Your task to perform on an android device: change text size in settings app Image 0: 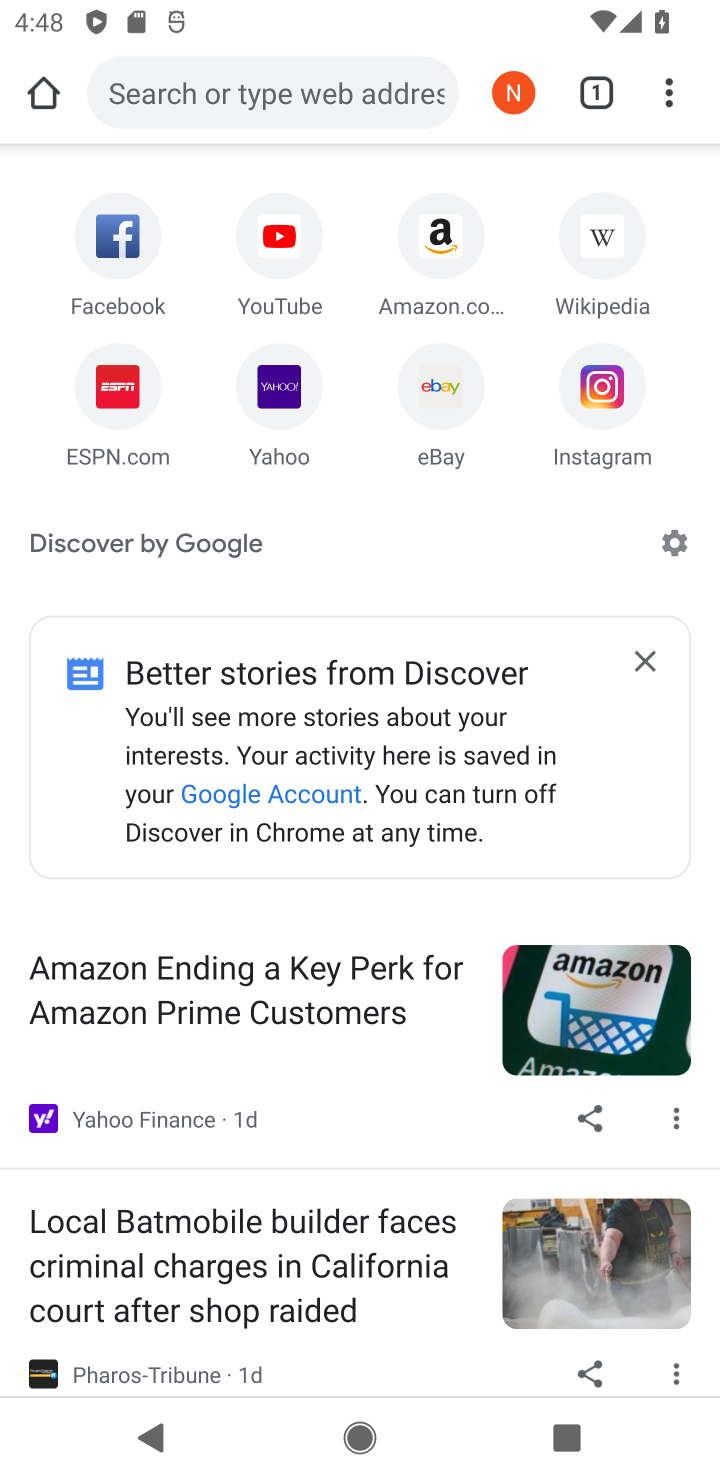
Step 0: press home button
Your task to perform on an android device: change text size in settings app Image 1: 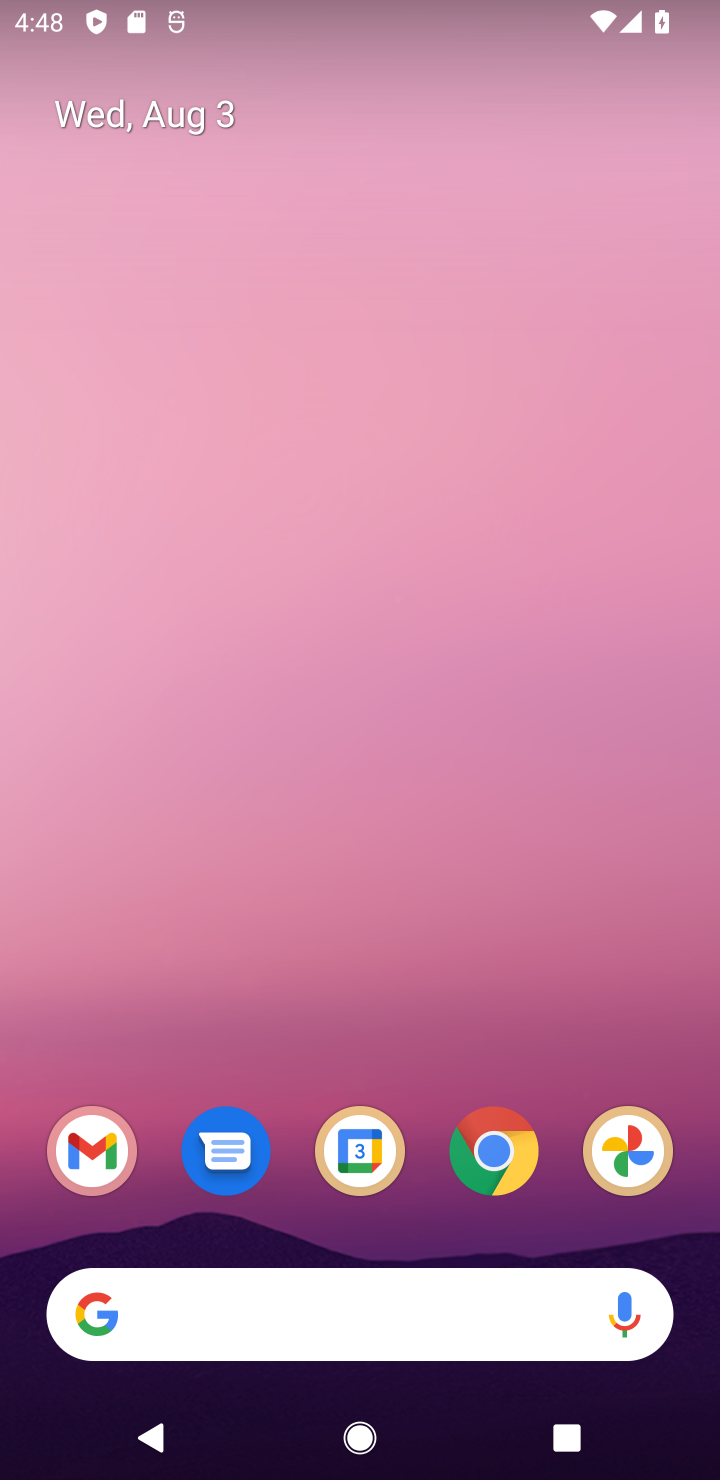
Step 1: drag from (470, 1088) to (420, 364)
Your task to perform on an android device: change text size in settings app Image 2: 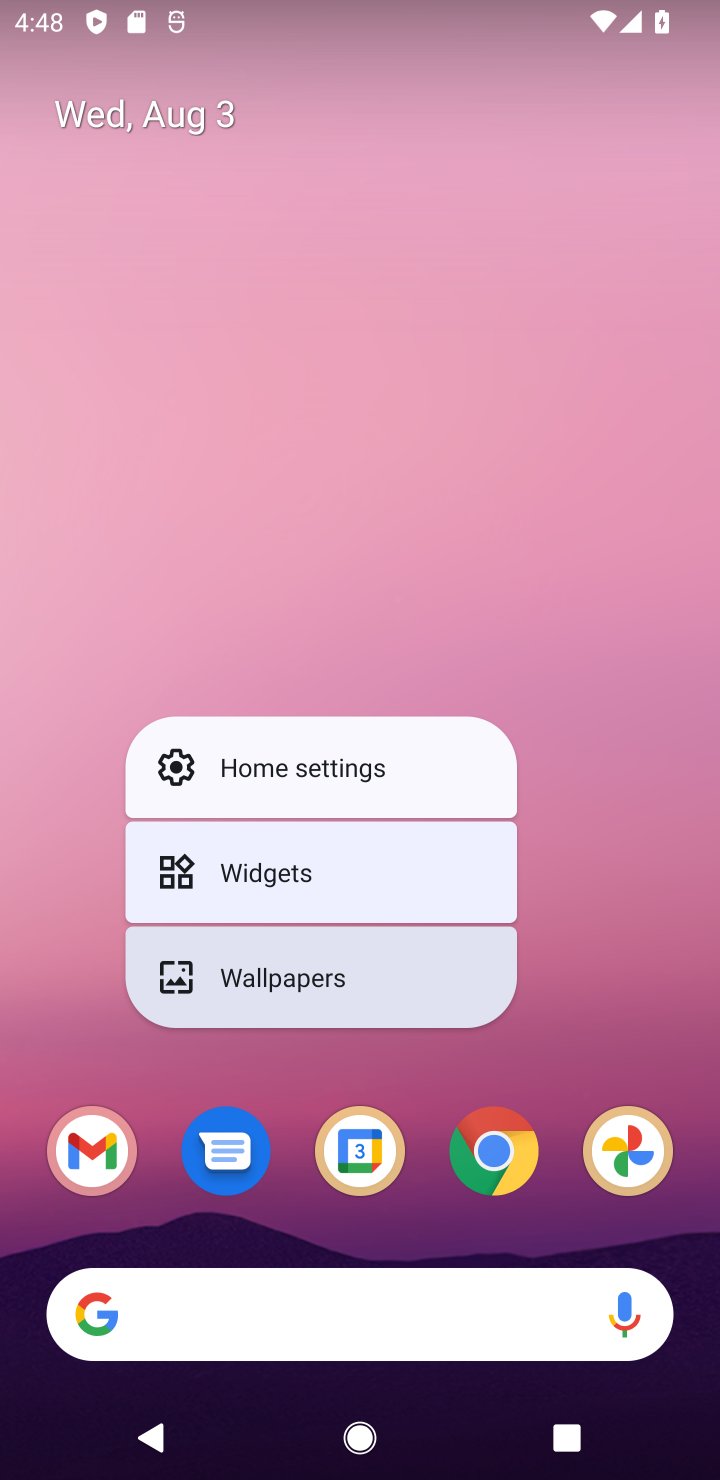
Step 2: click (633, 945)
Your task to perform on an android device: change text size in settings app Image 3: 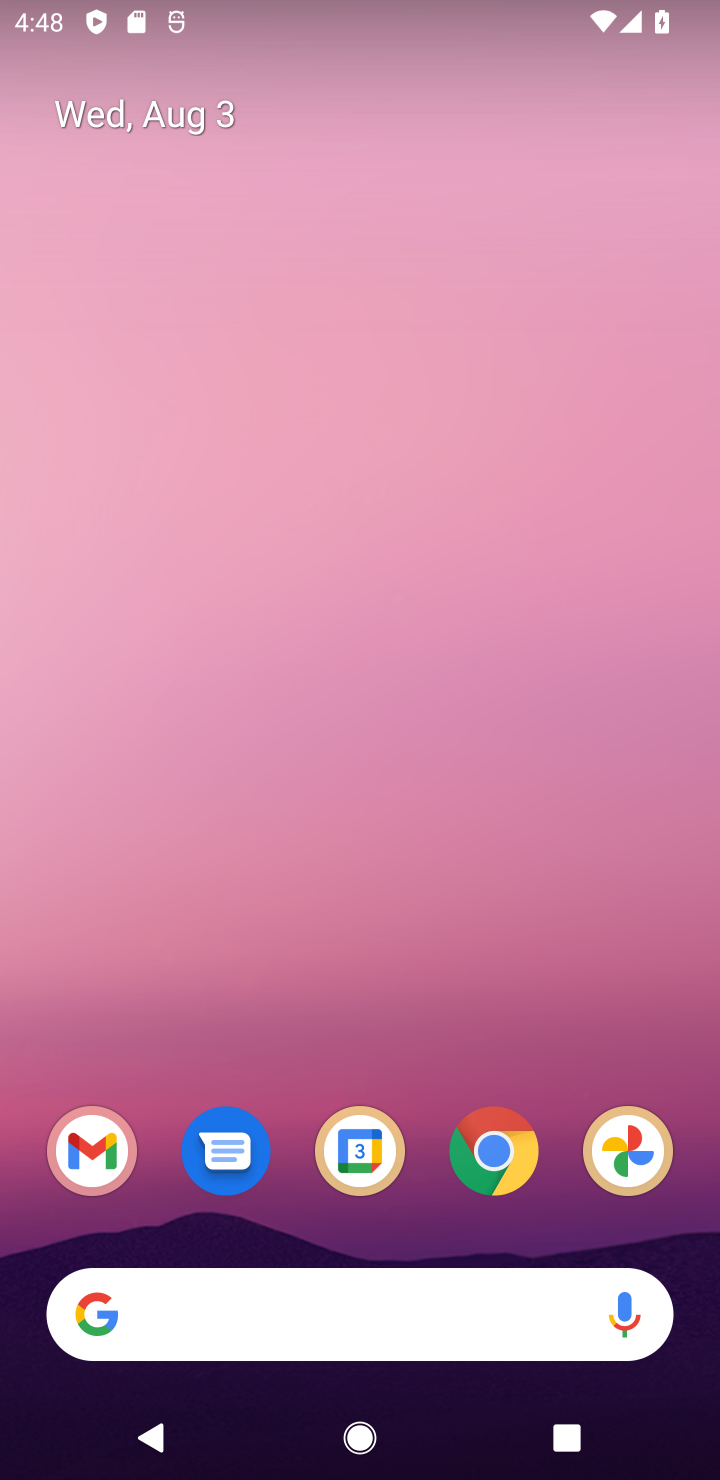
Step 3: click (130, 1090)
Your task to perform on an android device: change text size in settings app Image 4: 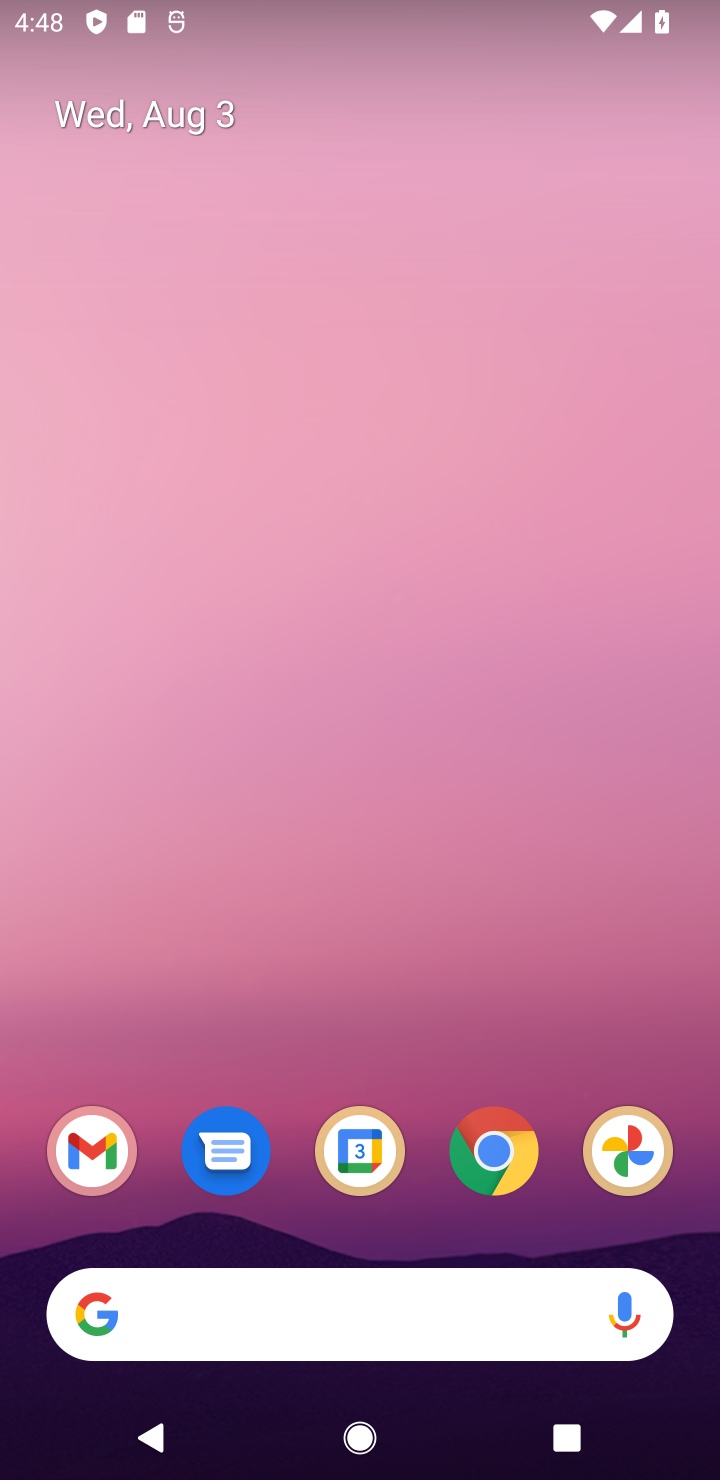
Step 4: drag from (192, 1081) to (230, 71)
Your task to perform on an android device: change text size in settings app Image 5: 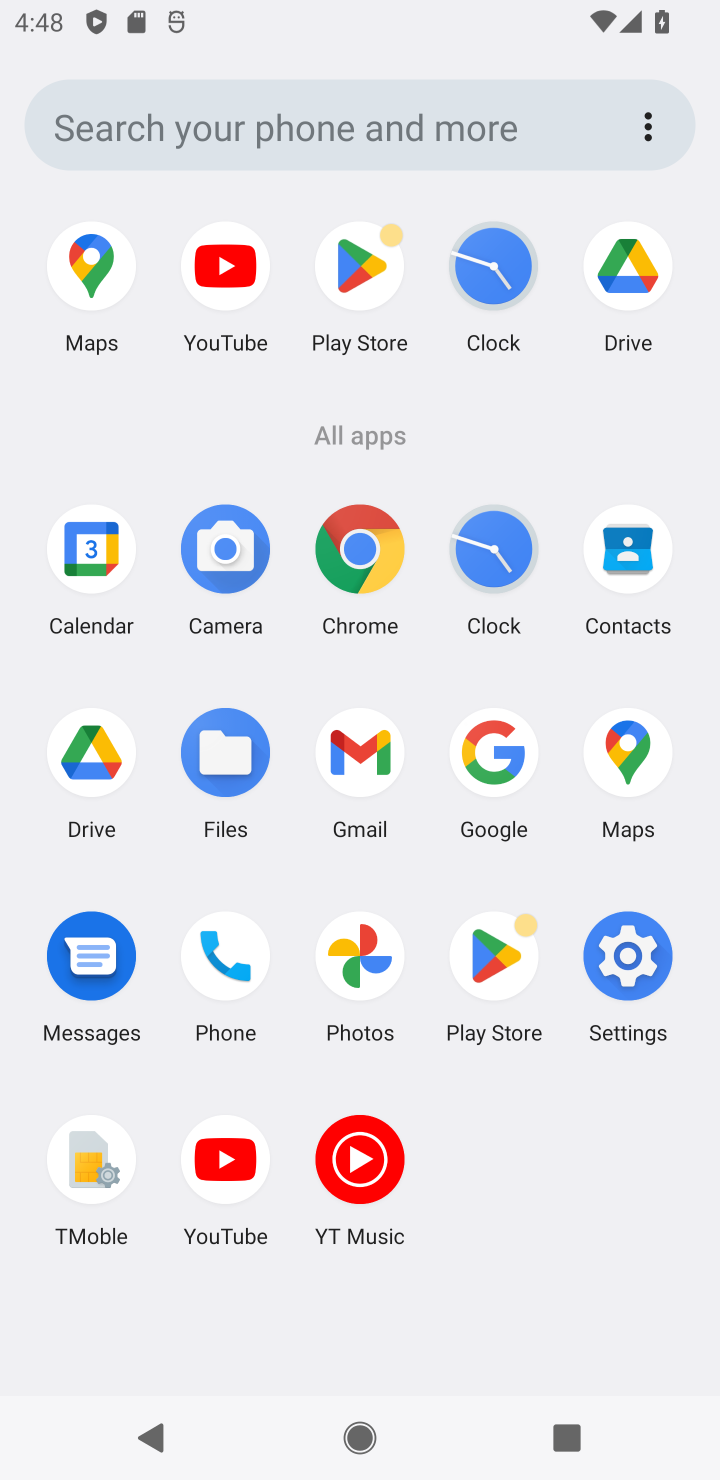
Step 5: click (633, 989)
Your task to perform on an android device: change text size in settings app Image 6: 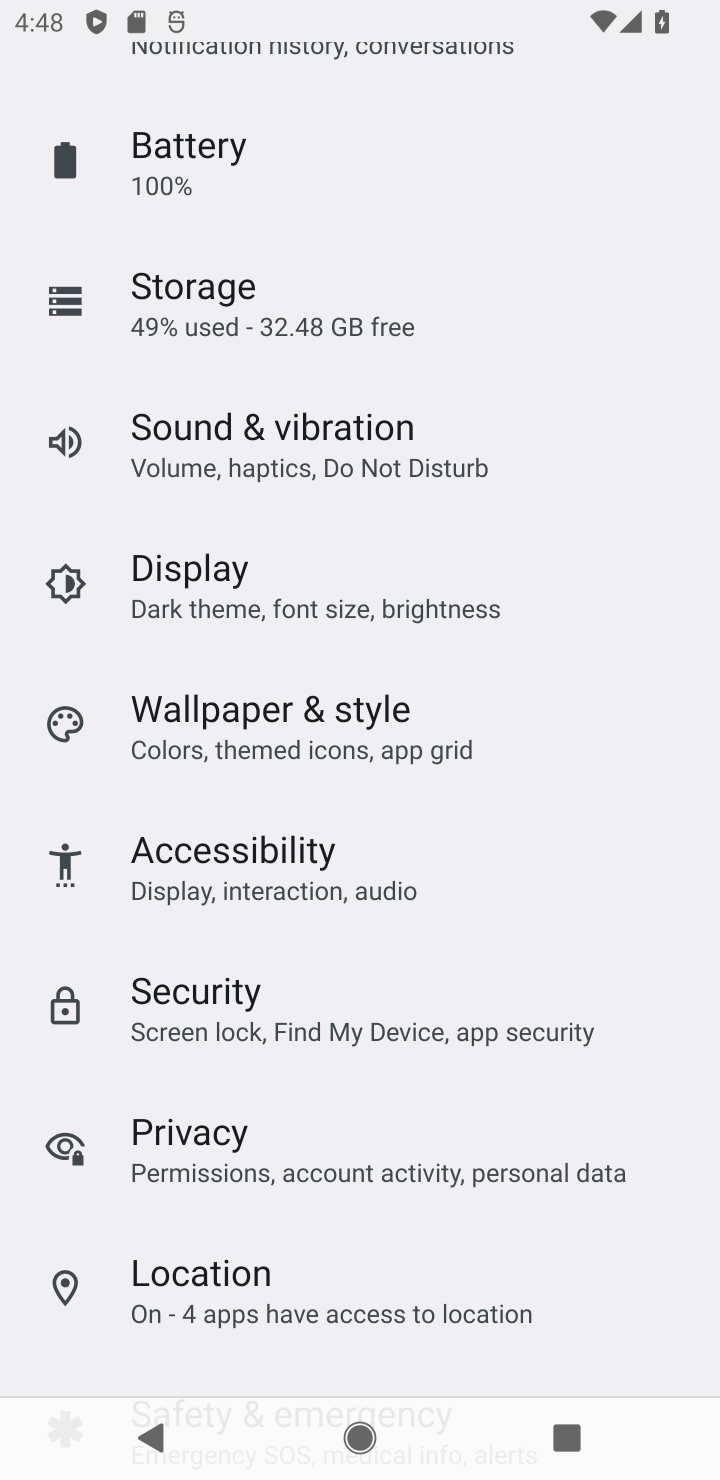
Step 6: click (232, 604)
Your task to perform on an android device: change text size in settings app Image 7: 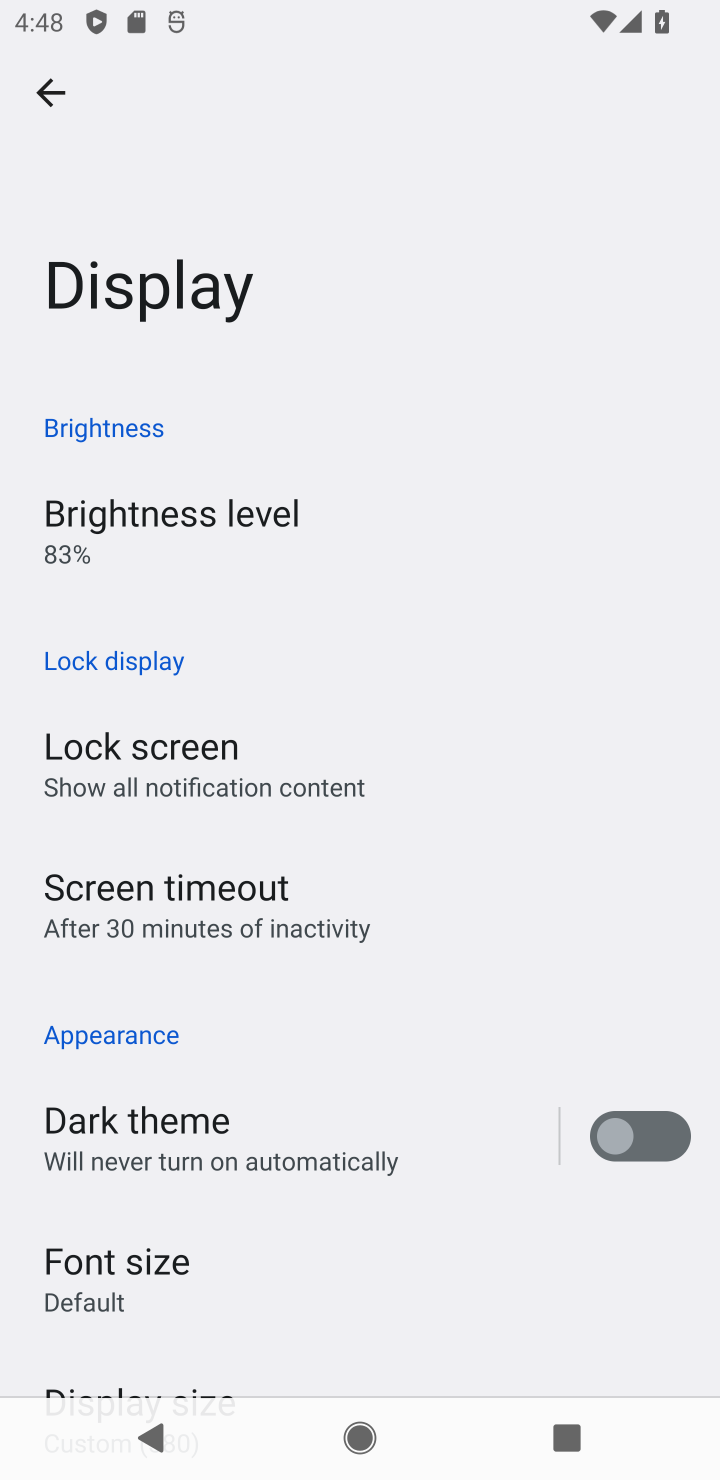
Step 7: drag from (256, 1036) to (189, 543)
Your task to perform on an android device: change text size in settings app Image 8: 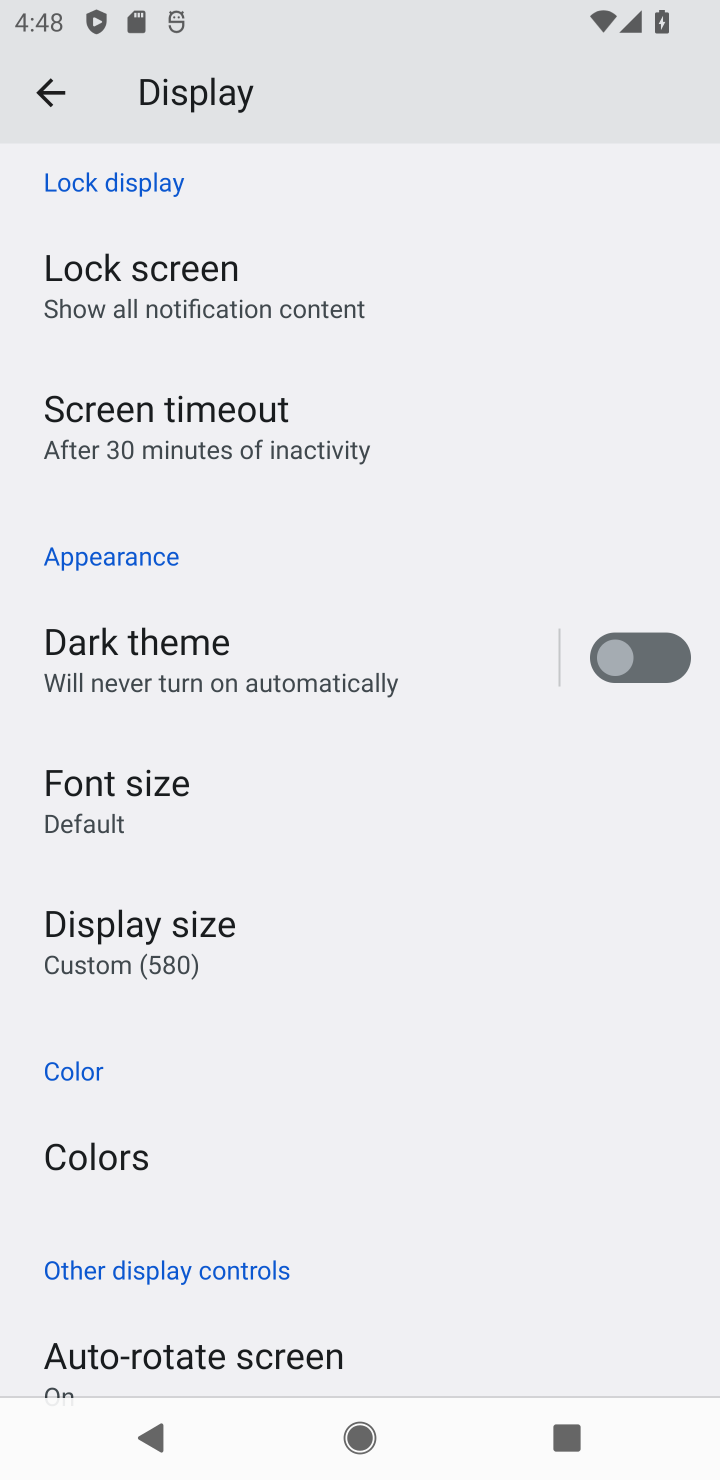
Step 8: click (201, 806)
Your task to perform on an android device: change text size in settings app Image 9: 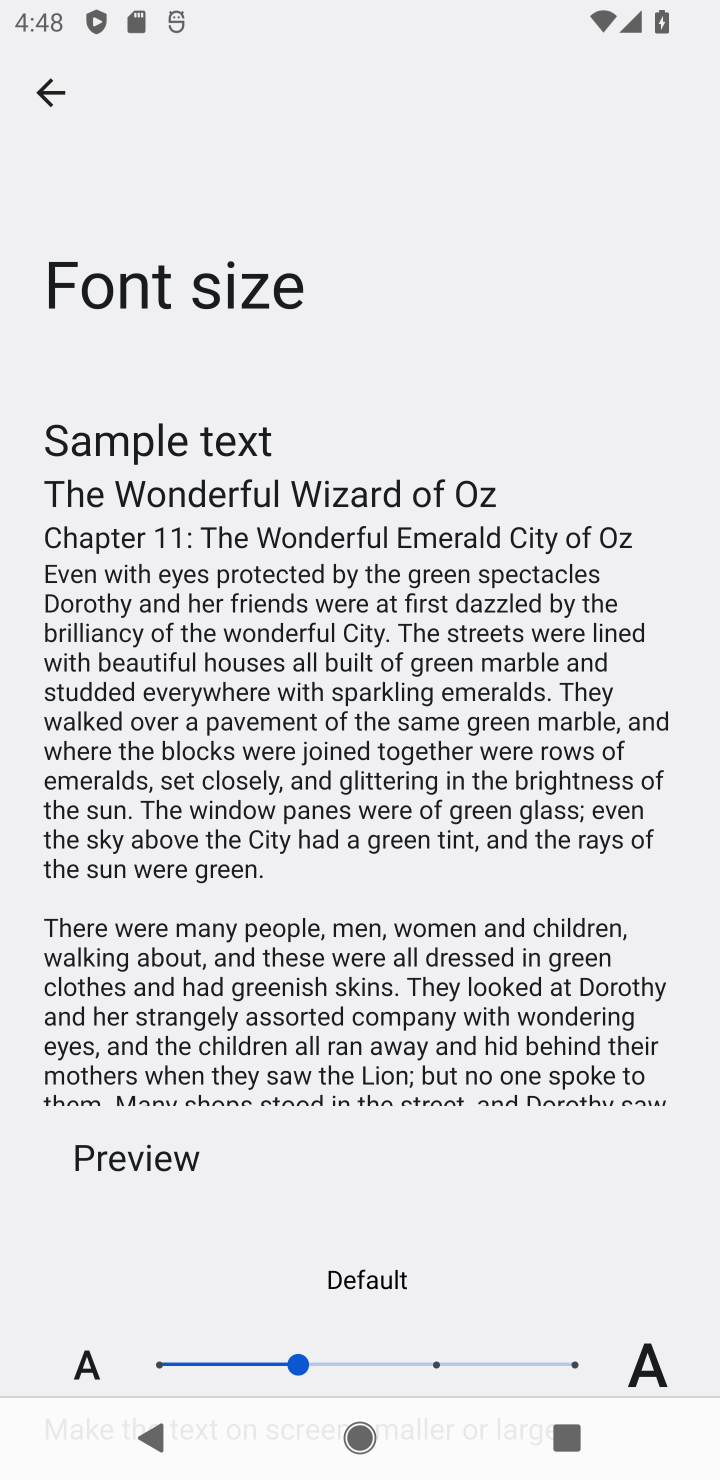
Step 9: click (437, 1358)
Your task to perform on an android device: change text size in settings app Image 10: 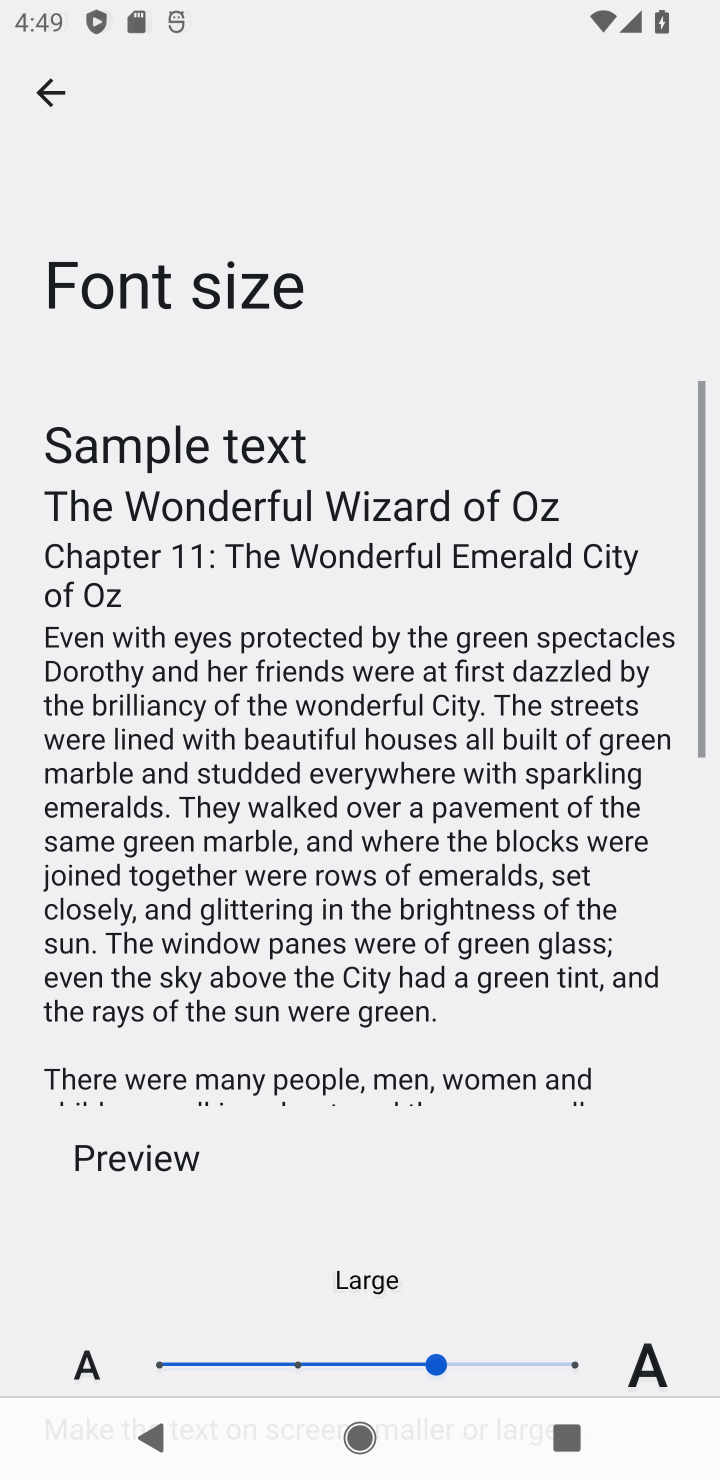
Step 10: task complete